Your task to perform on an android device: Open the web browser Image 0: 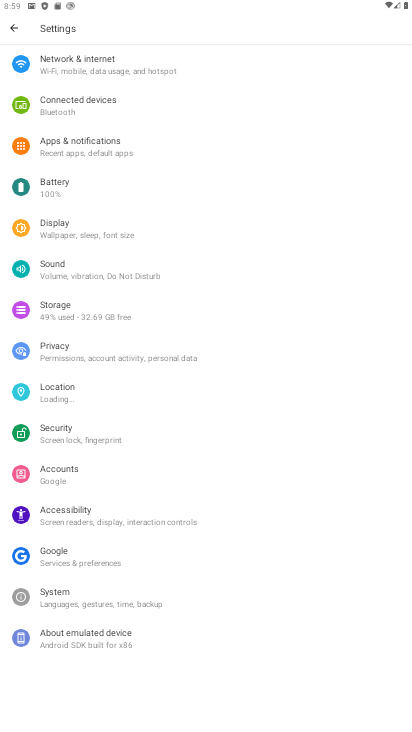
Step 0: press home button
Your task to perform on an android device: Open the web browser Image 1: 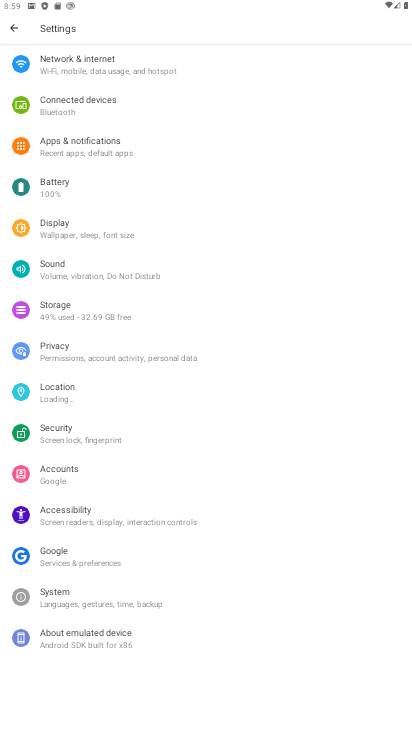
Step 1: press home button
Your task to perform on an android device: Open the web browser Image 2: 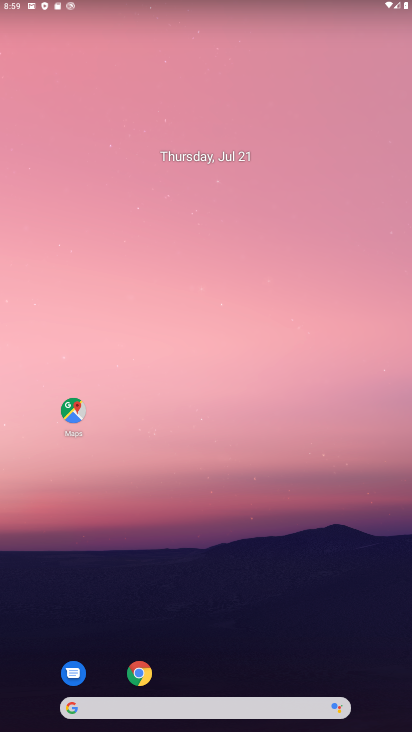
Step 2: drag from (179, 658) to (210, 4)
Your task to perform on an android device: Open the web browser Image 3: 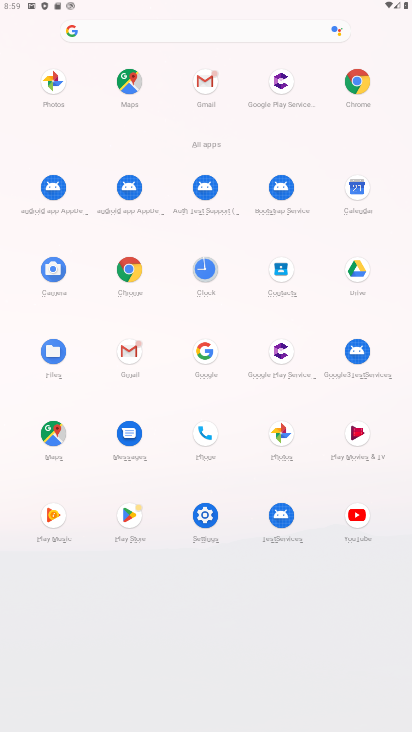
Step 3: click (365, 74)
Your task to perform on an android device: Open the web browser Image 4: 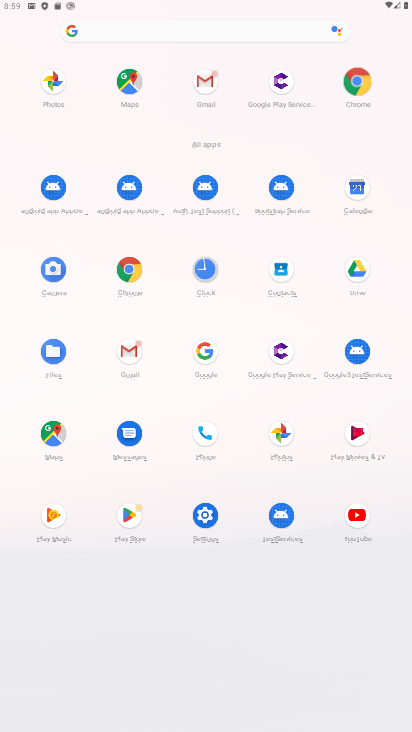
Step 4: click (364, 74)
Your task to perform on an android device: Open the web browser Image 5: 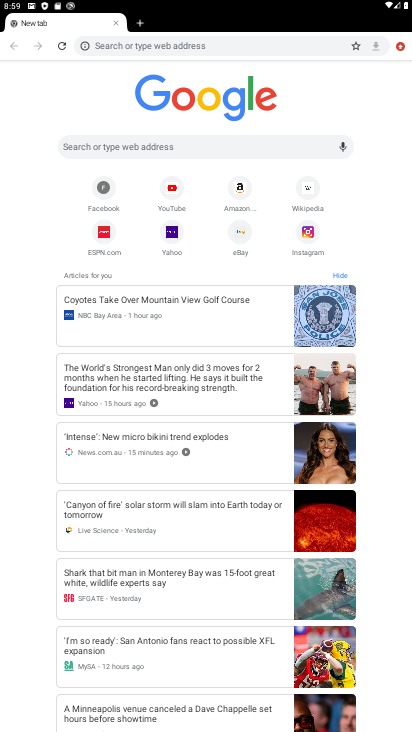
Step 5: task complete